Your task to perform on an android device: Open Wikipedia Image 0: 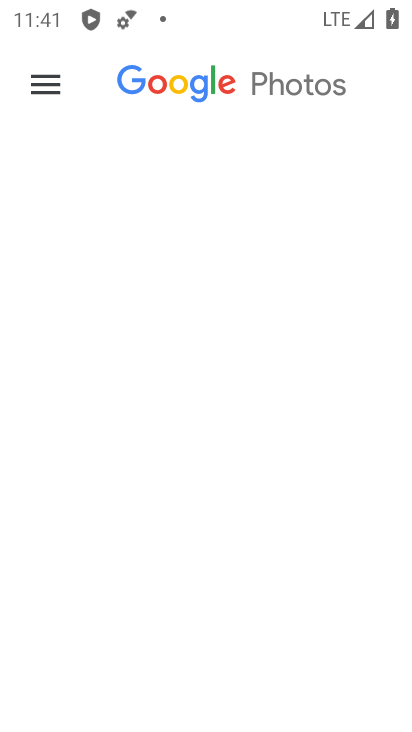
Step 0: press back button
Your task to perform on an android device: Open Wikipedia Image 1: 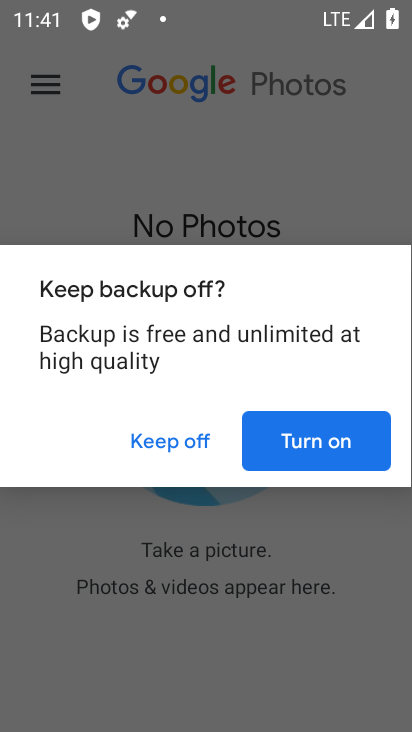
Step 1: press home button
Your task to perform on an android device: Open Wikipedia Image 2: 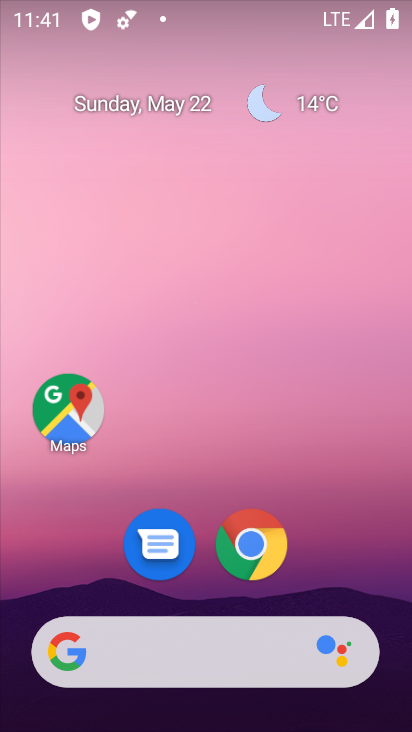
Step 2: drag from (300, 591) to (238, 177)
Your task to perform on an android device: Open Wikipedia Image 3: 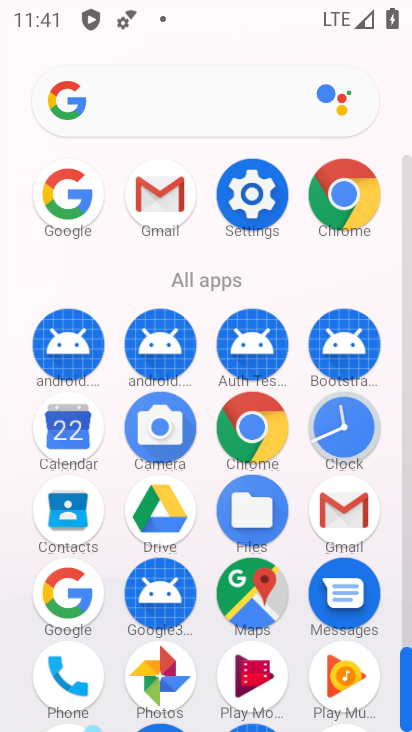
Step 3: click (351, 193)
Your task to perform on an android device: Open Wikipedia Image 4: 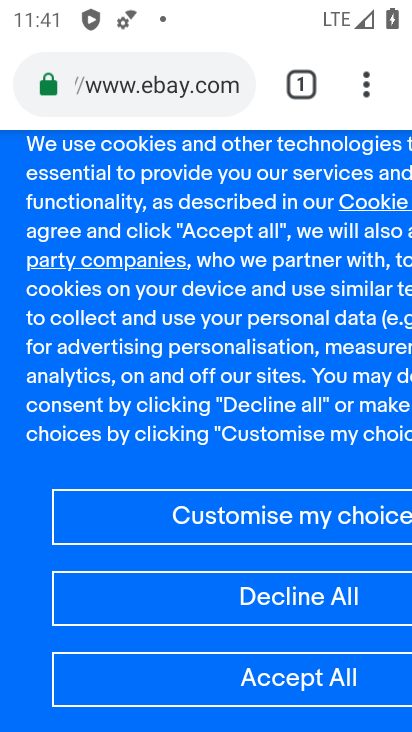
Step 4: press back button
Your task to perform on an android device: Open Wikipedia Image 5: 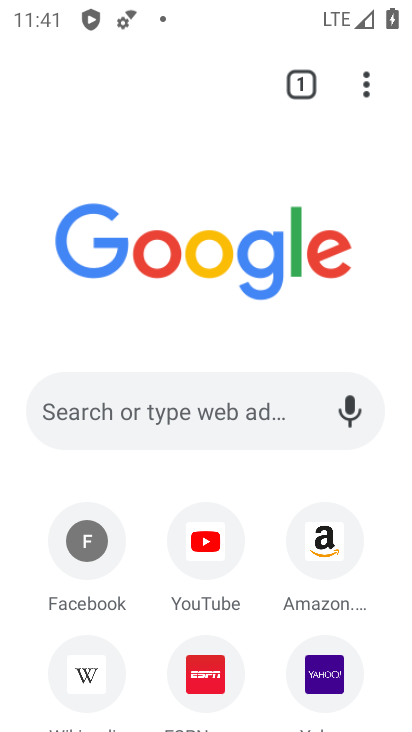
Step 5: click (82, 690)
Your task to perform on an android device: Open Wikipedia Image 6: 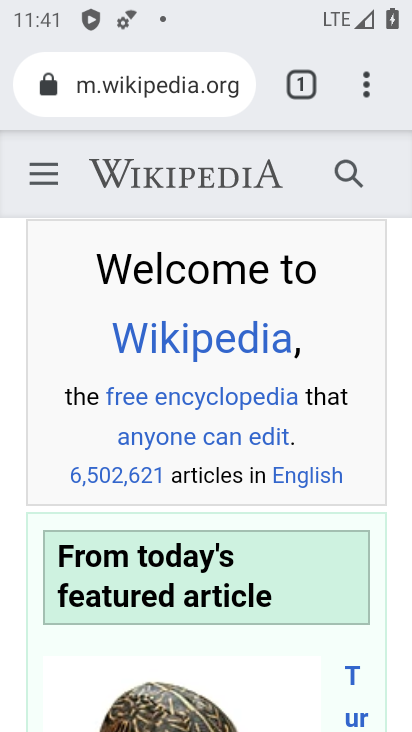
Step 6: task complete